Your task to perform on an android device: visit the assistant section in the google photos Image 0: 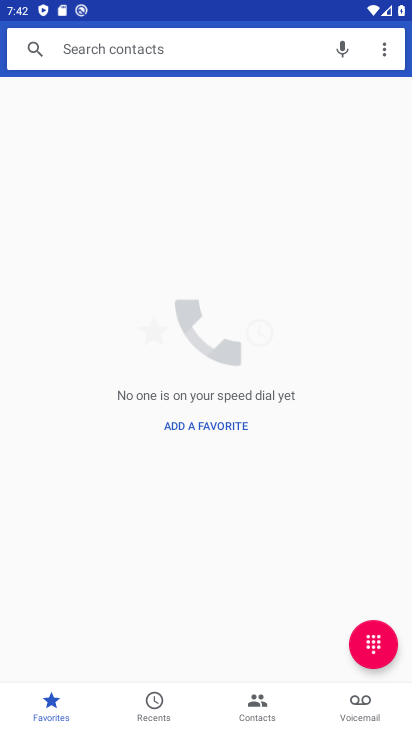
Step 0: press home button
Your task to perform on an android device: visit the assistant section in the google photos Image 1: 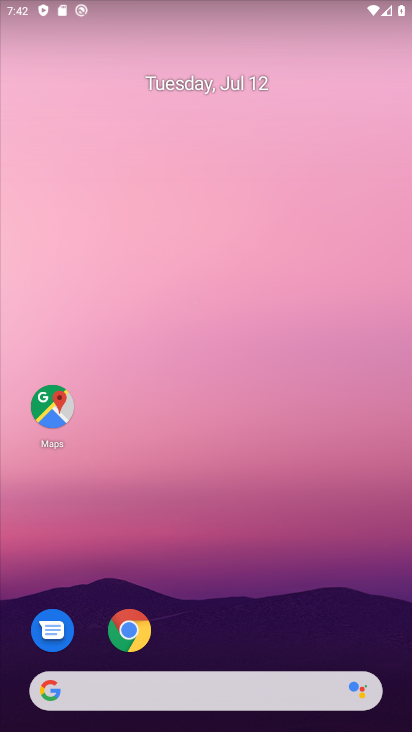
Step 1: drag from (279, 686) to (245, 32)
Your task to perform on an android device: visit the assistant section in the google photos Image 2: 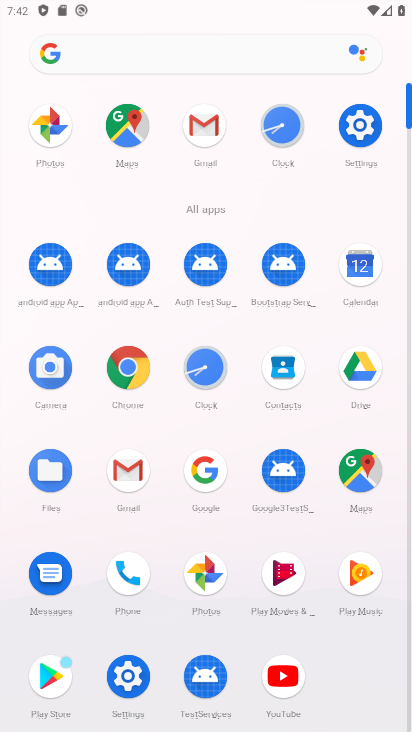
Step 2: click (217, 574)
Your task to perform on an android device: visit the assistant section in the google photos Image 3: 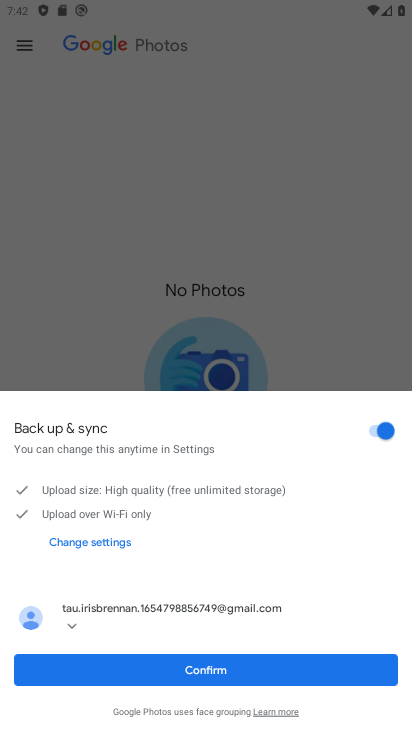
Step 3: click (355, 668)
Your task to perform on an android device: visit the assistant section in the google photos Image 4: 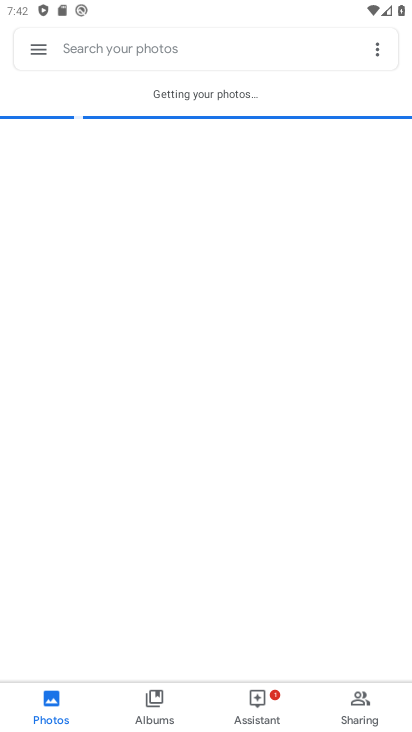
Step 4: click (257, 702)
Your task to perform on an android device: visit the assistant section in the google photos Image 5: 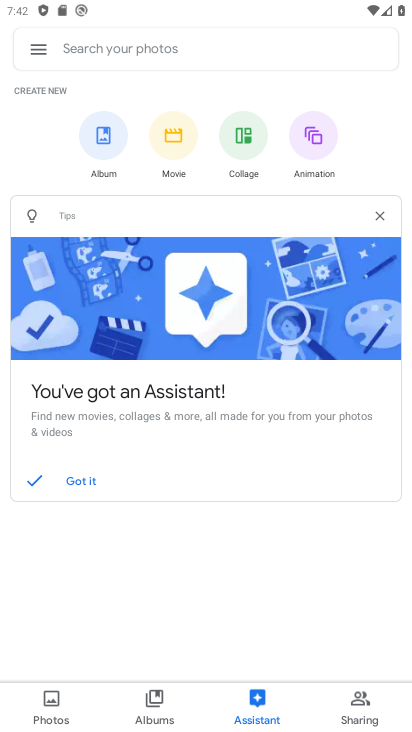
Step 5: task complete